Your task to perform on an android device: add a contact in the contacts app Image 0: 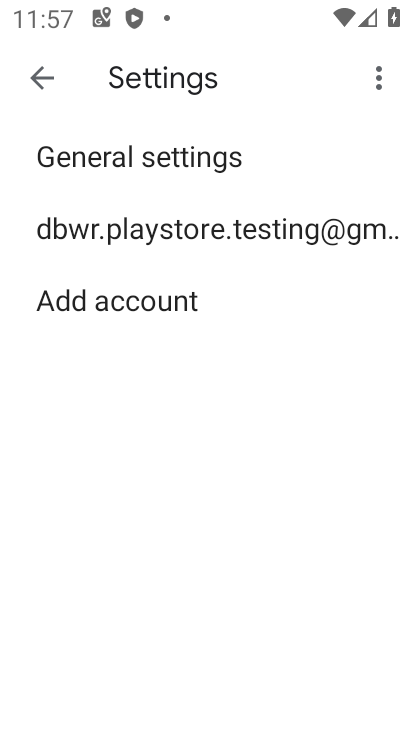
Step 0: press home button
Your task to perform on an android device: add a contact in the contacts app Image 1: 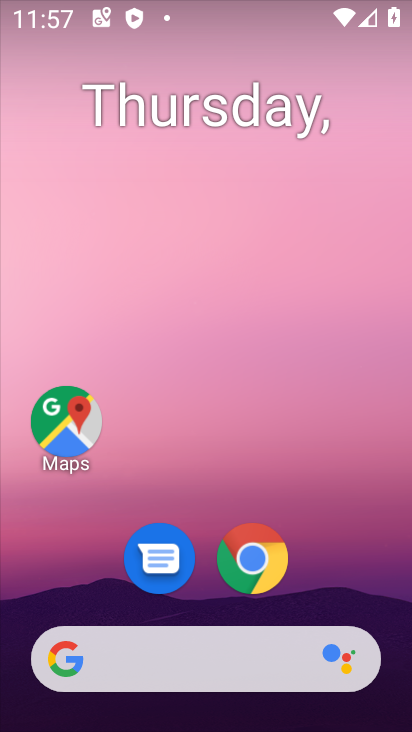
Step 1: drag from (372, 610) to (216, 66)
Your task to perform on an android device: add a contact in the contacts app Image 2: 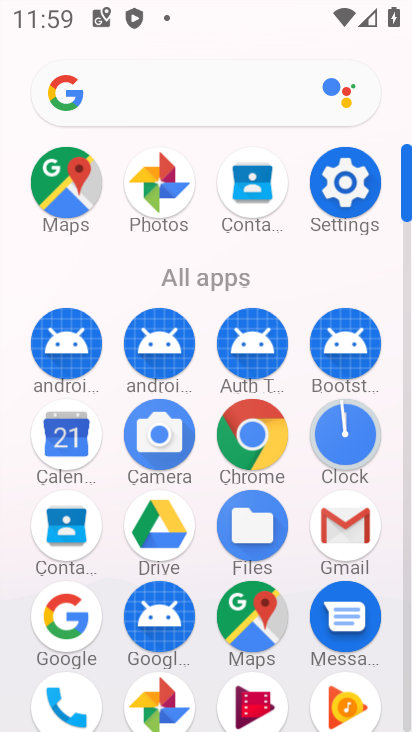
Step 2: click (75, 526)
Your task to perform on an android device: add a contact in the contacts app Image 3: 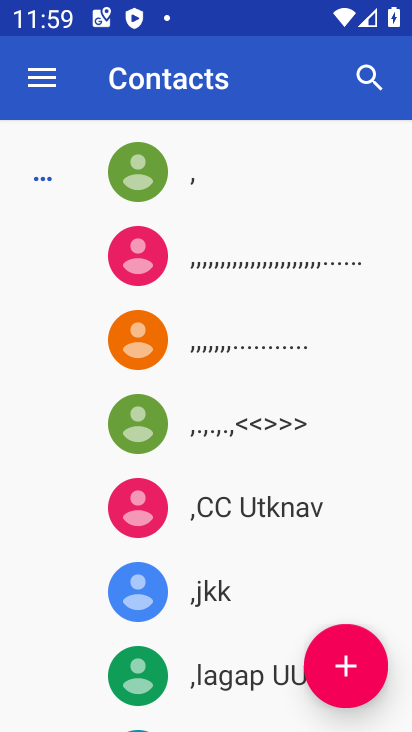
Step 3: click (324, 658)
Your task to perform on an android device: add a contact in the contacts app Image 4: 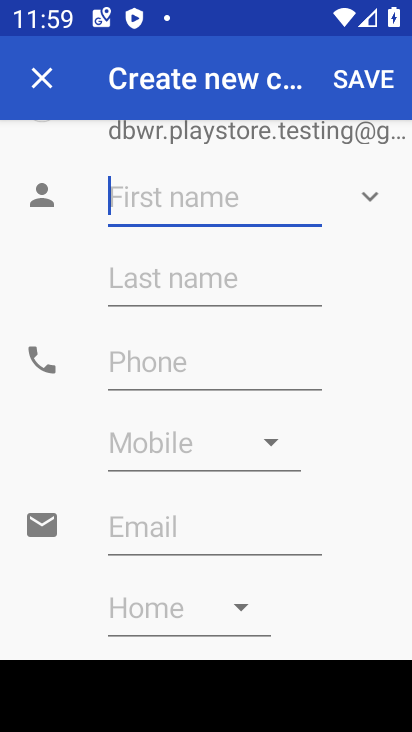
Step 4: type "anjali"
Your task to perform on an android device: add a contact in the contacts app Image 5: 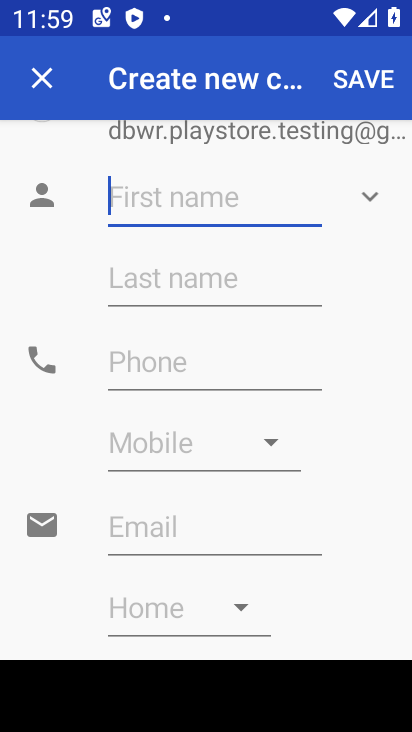
Step 5: click (361, 63)
Your task to perform on an android device: add a contact in the contacts app Image 6: 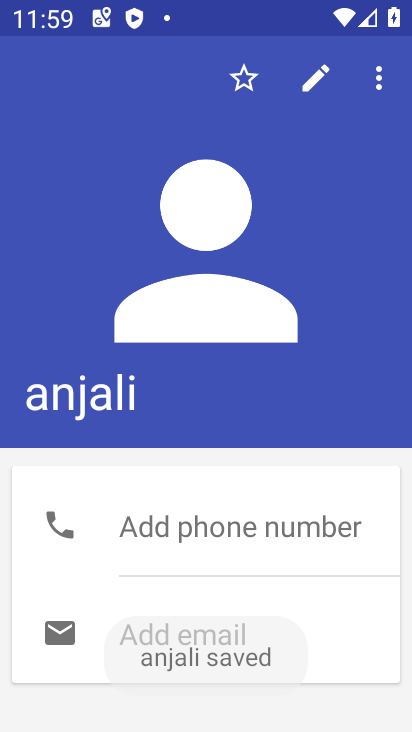
Step 6: task complete